Your task to perform on an android device: Is it going to rain tomorrow? Image 0: 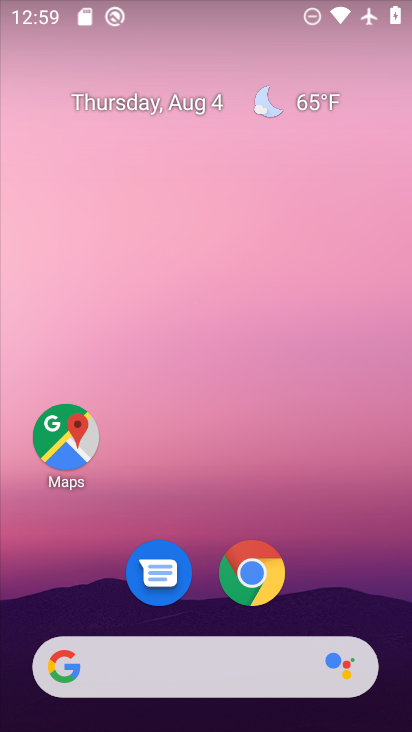
Step 0: drag from (339, 588) to (290, 513)
Your task to perform on an android device: Is it going to rain tomorrow? Image 1: 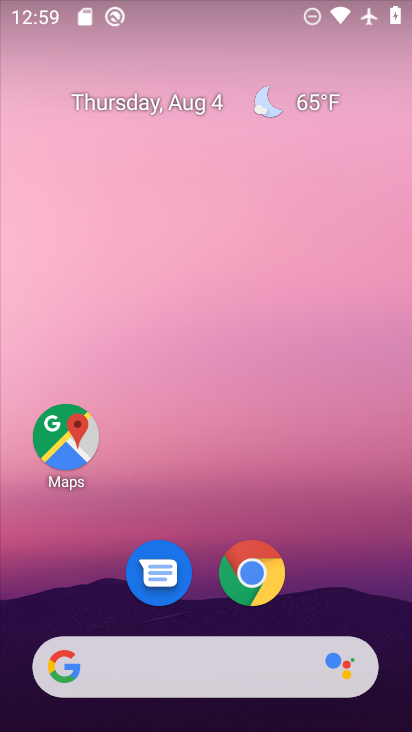
Step 1: click (310, 106)
Your task to perform on an android device: Is it going to rain tomorrow? Image 2: 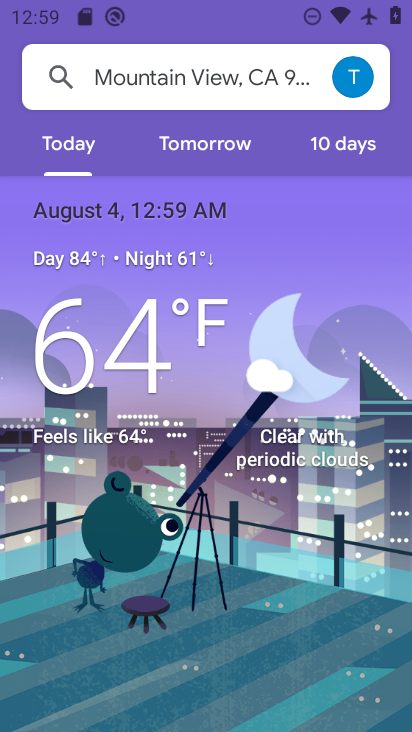
Step 2: click (232, 148)
Your task to perform on an android device: Is it going to rain tomorrow? Image 3: 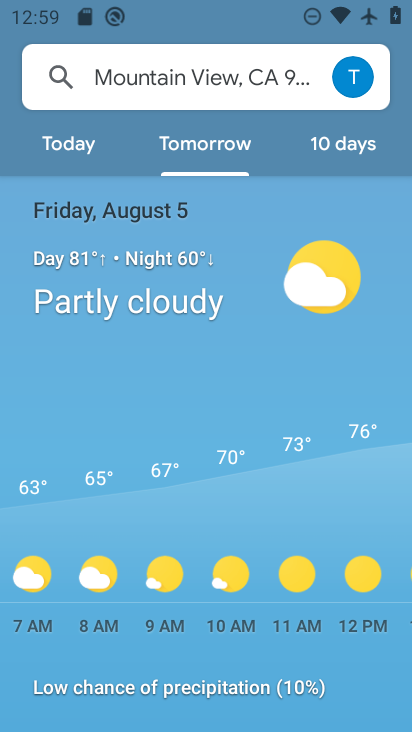
Step 3: task complete